Your task to perform on an android device: turn vacation reply on in the gmail app Image 0: 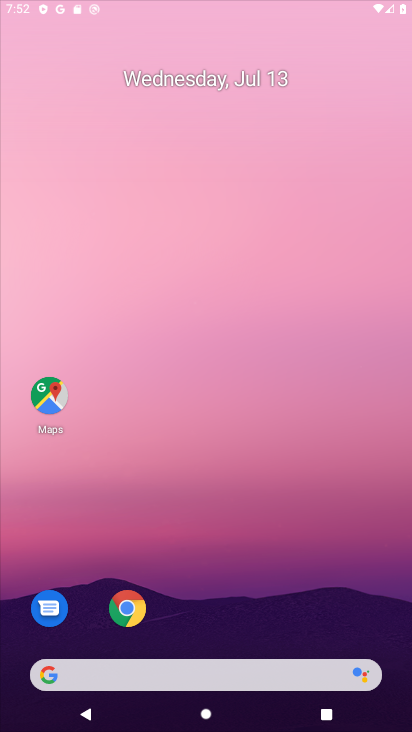
Step 0: drag from (249, 649) to (158, 317)
Your task to perform on an android device: turn vacation reply on in the gmail app Image 1: 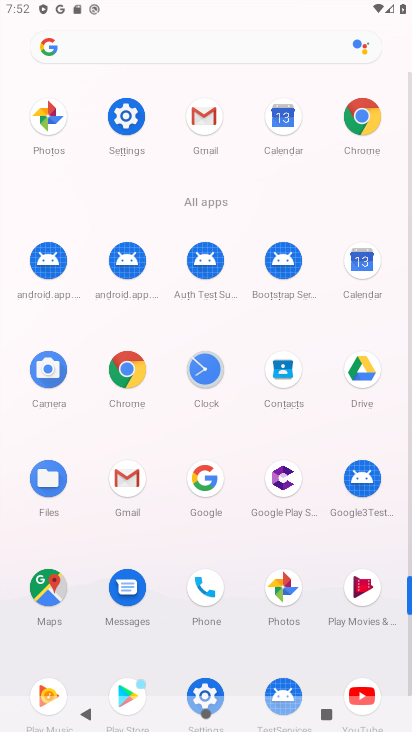
Step 1: click (130, 481)
Your task to perform on an android device: turn vacation reply on in the gmail app Image 2: 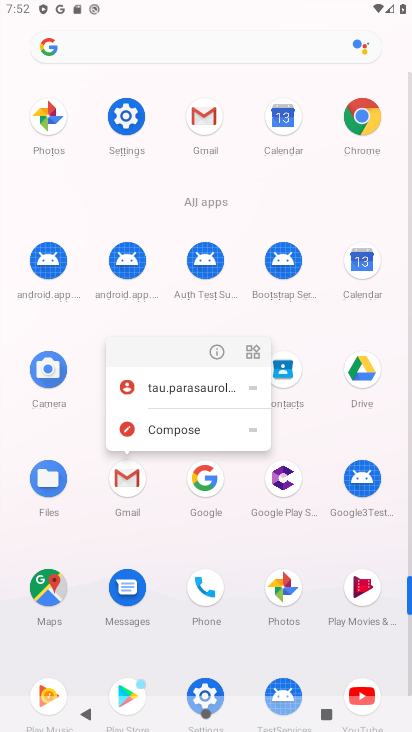
Step 2: click (121, 476)
Your task to perform on an android device: turn vacation reply on in the gmail app Image 3: 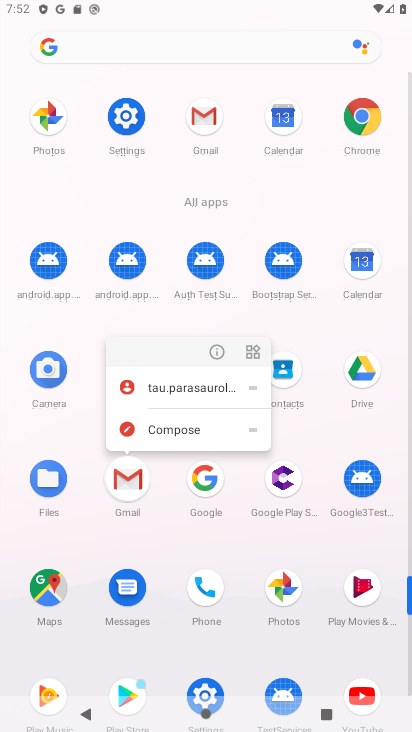
Step 3: click (127, 473)
Your task to perform on an android device: turn vacation reply on in the gmail app Image 4: 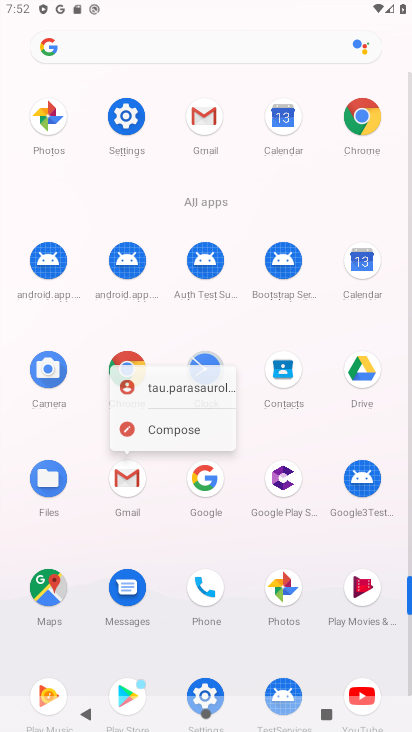
Step 4: click (130, 474)
Your task to perform on an android device: turn vacation reply on in the gmail app Image 5: 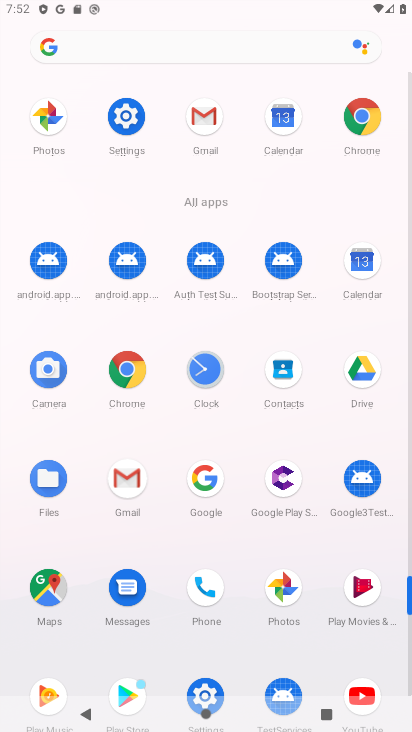
Step 5: click (130, 475)
Your task to perform on an android device: turn vacation reply on in the gmail app Image 6: 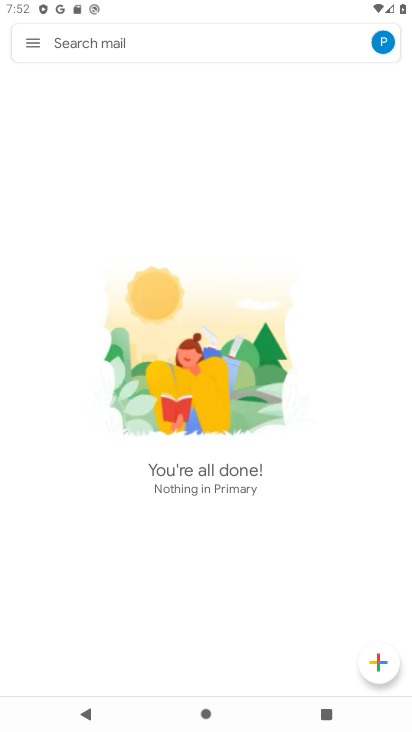
Step 6: drag from (33, 35) to (42, 158)
Your task to perform on an android device: turn vacation reply on in the gmail app Image 7: 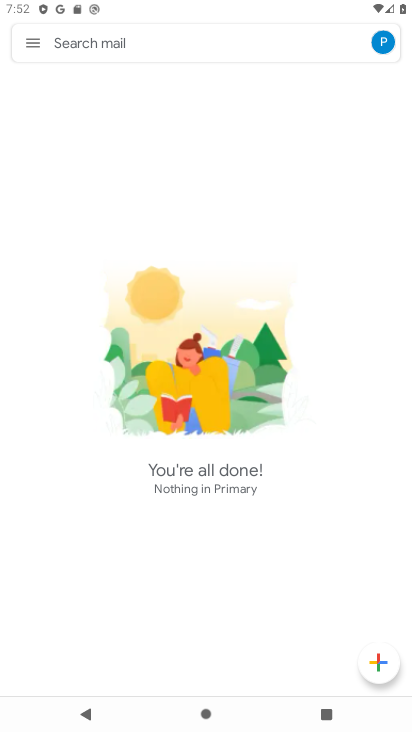
Step 7: click (34, 38)
Your task to perform on an android device: turn vacation reply on in the gmail app Image 8: 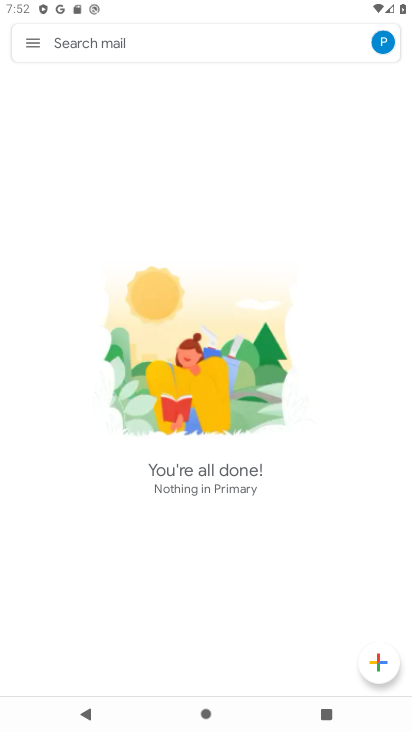
Step 8: drag from (33, 47) to (71, 176)
Your task to perform on an android device: turn vacation reply on in the gmail app Image 9: 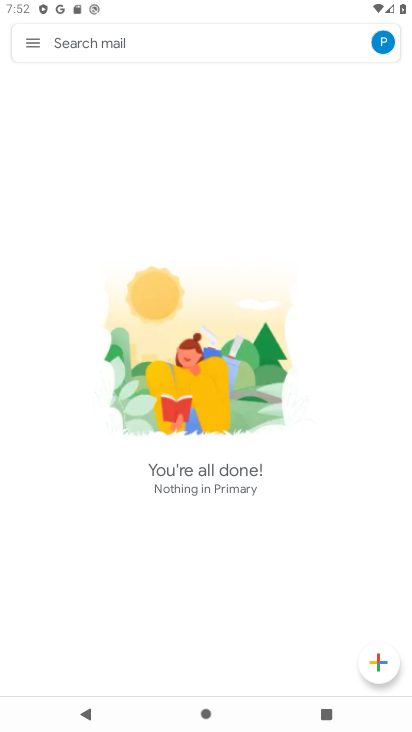
Step 9: click (38, 28)
Your task to perform on an android device: turn vacation reply on in the gmail app Image 10: 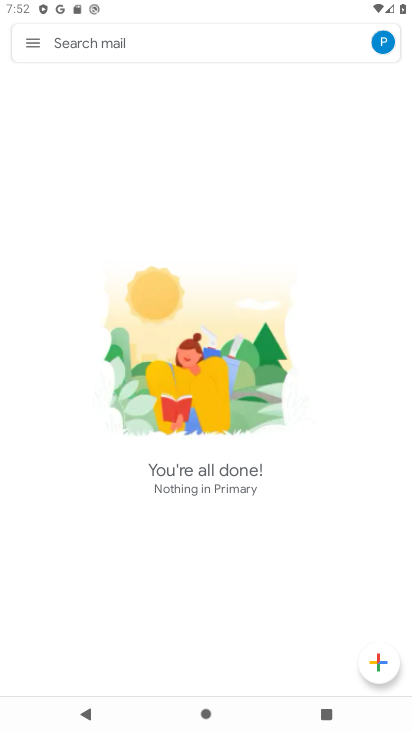
Step 10: click (36, 43)
Your task to perform on an android device: turn vacation reply on in the gmail app Image 11: 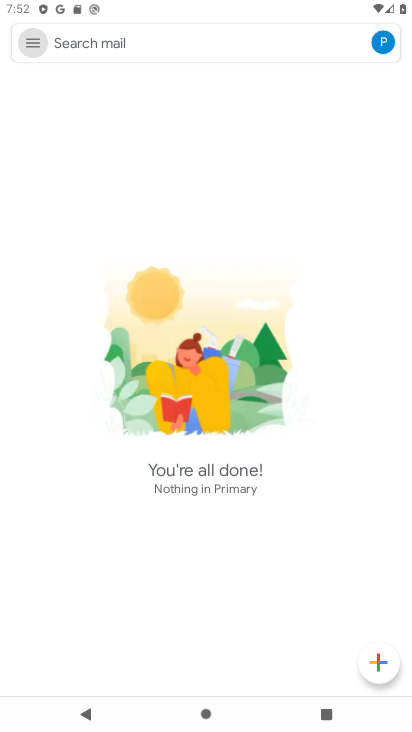
Step 11: click (36, 43)
Your task to perform on an android device: turn vacation reply on in the gmail app Image 12: 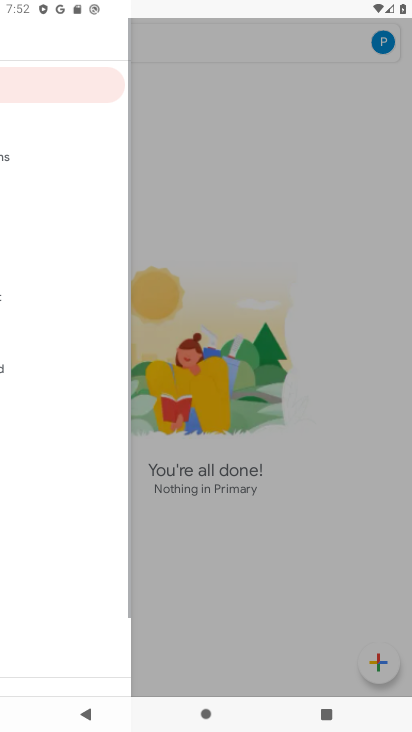
Step 12: drag from (36, 43) to (98, 393)
Your task to perform on an android device: turn vacation reply on in the gmail app Image 13: 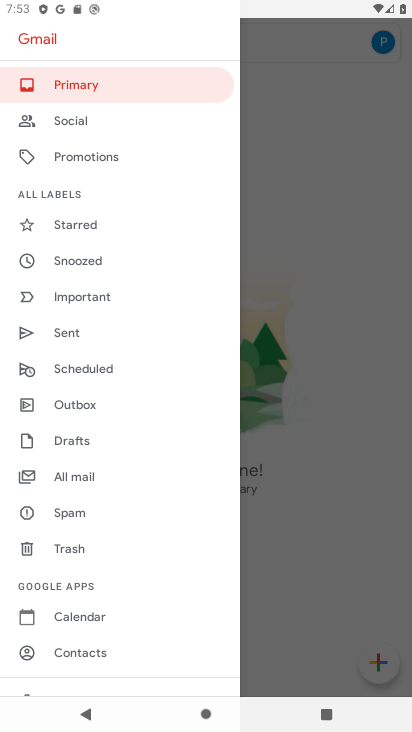
Step 13: drag from (98, 554) to (104, 419)
Your task to perform on an android device: turn vacation reply on in the gmail app Image 14: 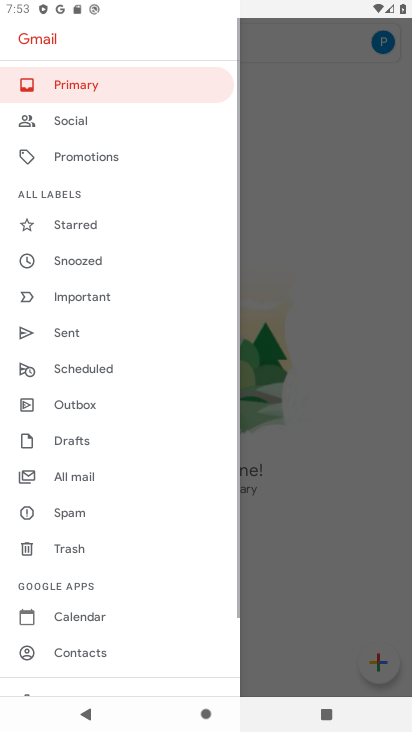
Step 14: drag from (104, 631) to (113, 378)
Your task to perform on an android device: turn vacation reply on in the gmail app Image 15: 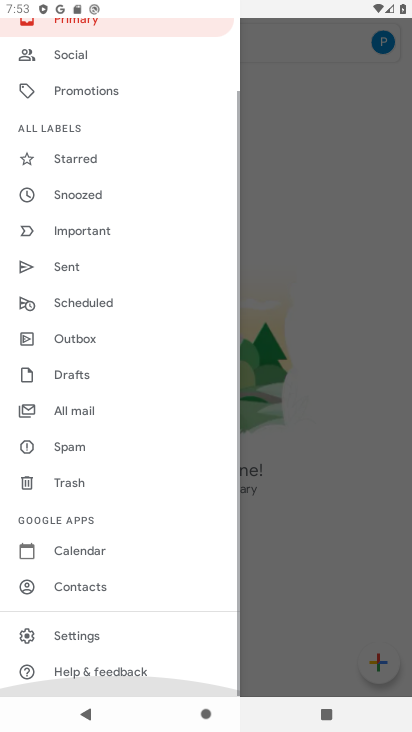
Step 15: drag from (89, 667) to (103, 359)
Your task to perform on an android device: turn vacation reply on in the gmail app Image 16: 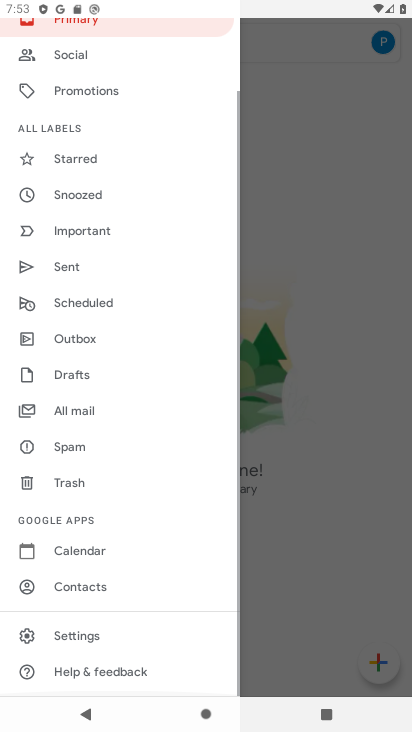
Step 16: click (68, 637)
Your task to perform on an android device: turn vacation reply on in the gmail app Image 17: 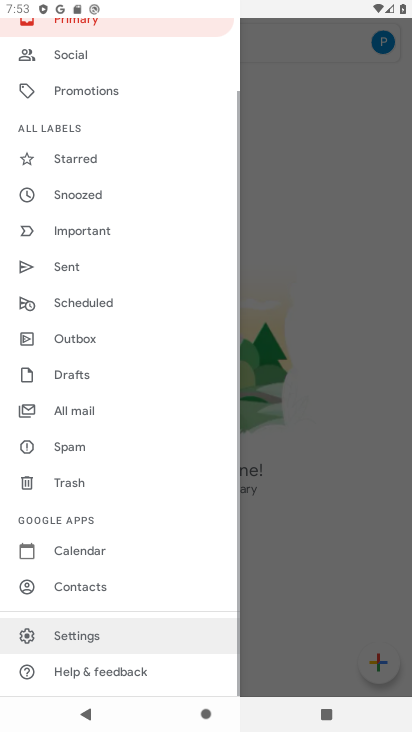
Step 17: click (68, 637)
Your task to perform on an android device: turn vacation reply on in the gmail app Image 18: 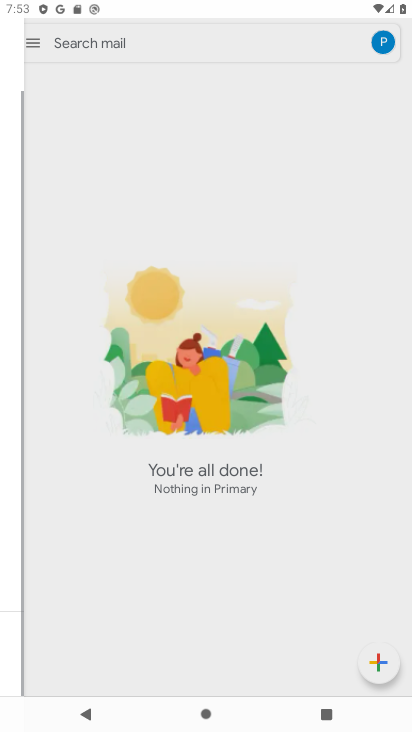
Step 18: click (68, 637)
Your task to perform on an android device: turn vacation reply on in the gmail app Image 19: 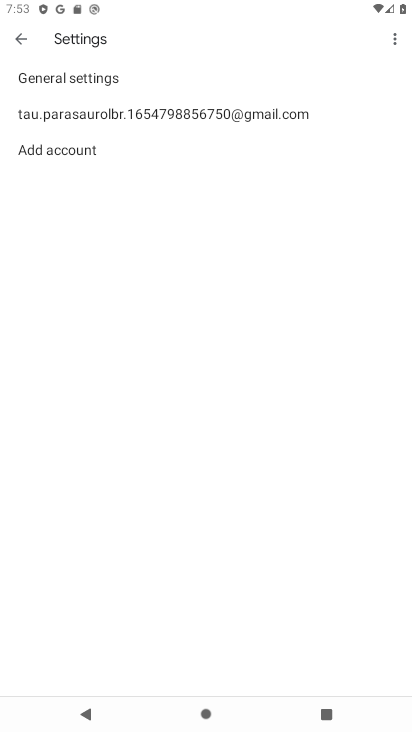
Step 19: click (122, 109)
Your task to perform on an android device: turn vacation reply on in the gmail app Image 20: 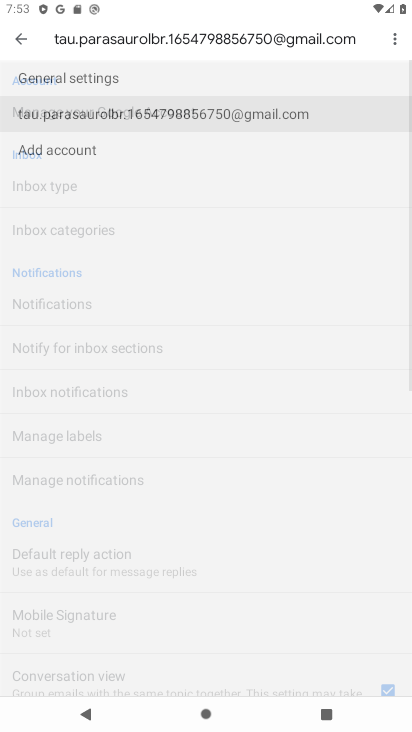
Step 20: click (122, 109)
Your task to perform on an android device: turn vacation reply on in the gmail app Image 21: 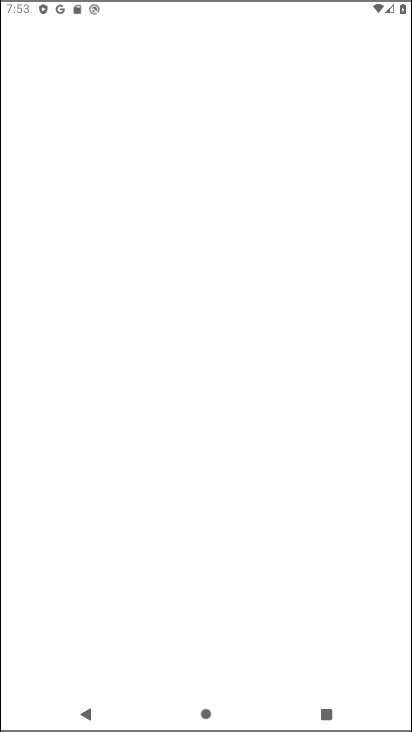
Step 21: drag from (138, 526) to (137, 250)
Your task to perform on an android device: turn vacation reply on in the gmail app Image 22: 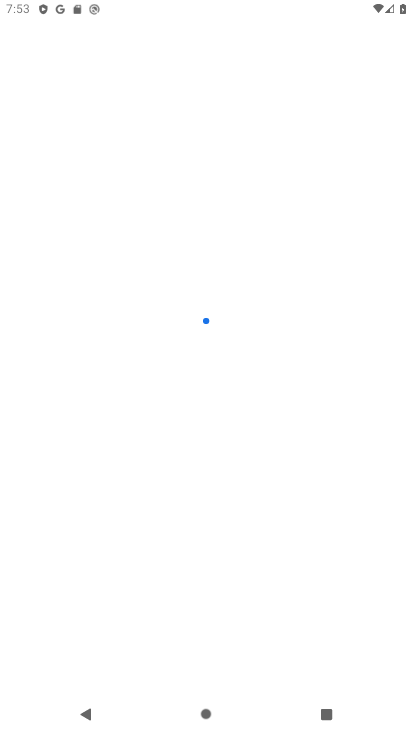
Step 22: drag from (124, 565) to (117, 388)
Your task to perform on an android device: turn vacation reply on in the gmail app Image 23: 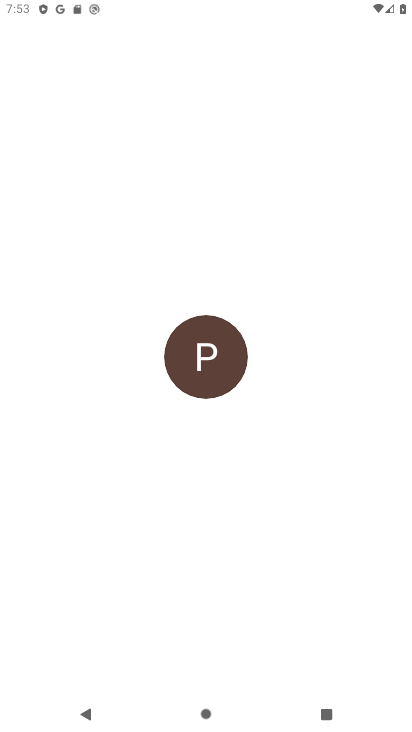
Step 23: press back button
Your task to perform on an android device: turn vacation reply on in the gmail app Image 24: 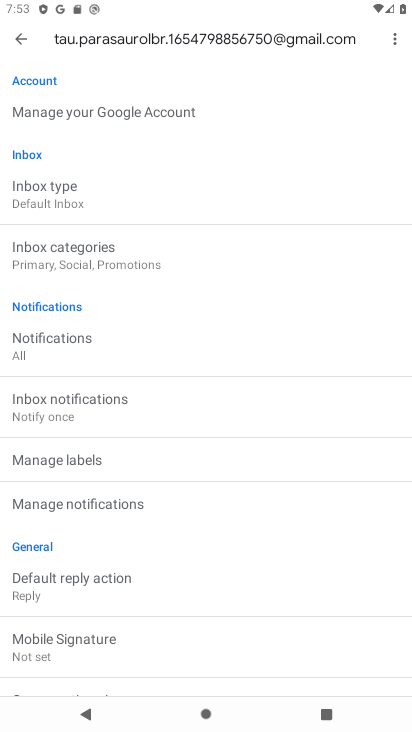
Step 24: drag from (89, 637) to (78, 236)
Your task to perform on an android device: turn vacation reply on in the gmail app Image 25: 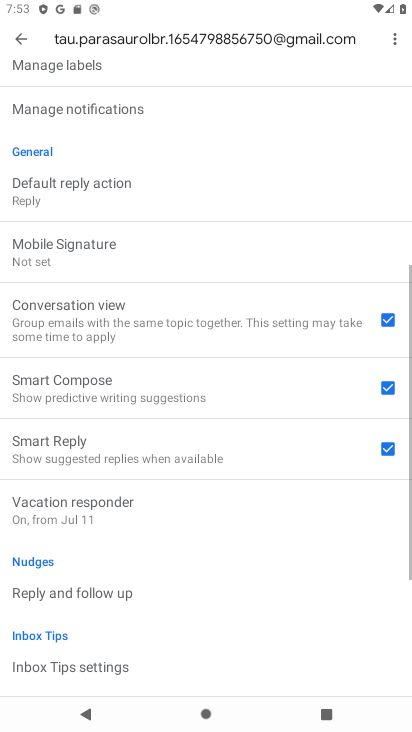
Step 25: drag from (103, 465) to (83, 230)
Your task to perform on an android device: turn vacation reply on in the gmail app Image 26: 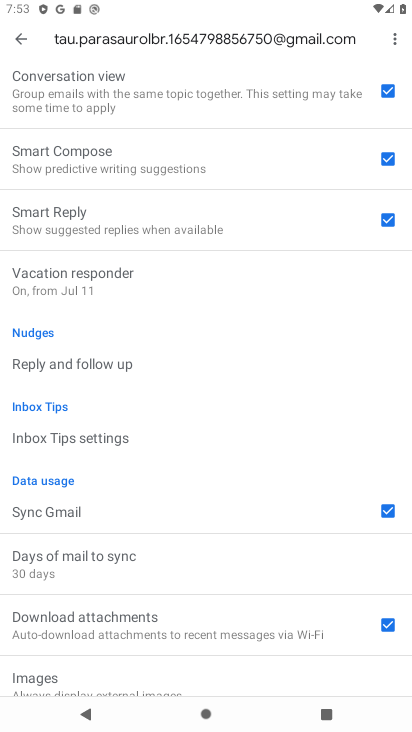
Step 26: click (71, 283)
Your task to perform on an android device: turn vacation reply on in the gmail app Image 27: 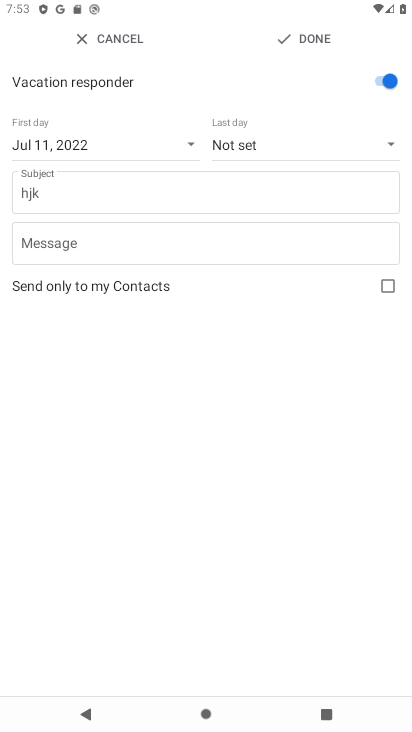
Step 27: task complete